Your task to perform on an android device: add a label to a message in the gmail app Image 0: 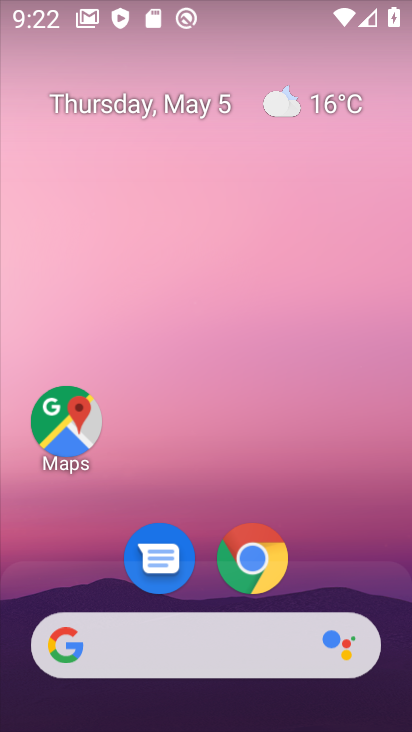
Step 0: drag from (338, 607) to (245, 177)
Your task to perform on an android device: add a label to a message in the gmail app Image 1: 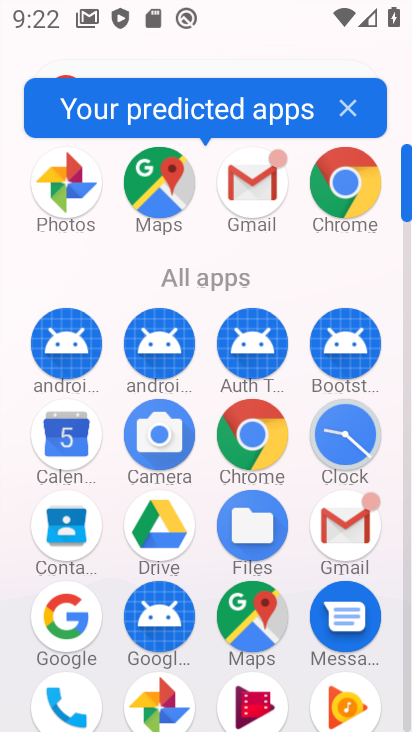
Step 1: click (247, 196)
Your task to perform on an android device: add a label to a message in the gmail app Image 2: 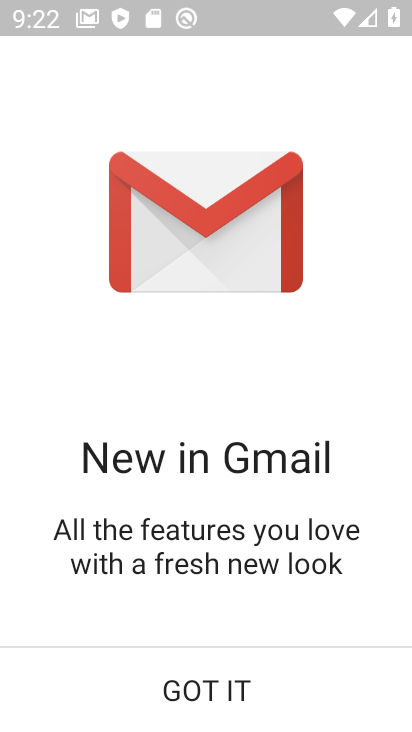
Step 2: click (228, 695)
Your task to perform on an android device: add a label to a message in the gmail app Image 3: 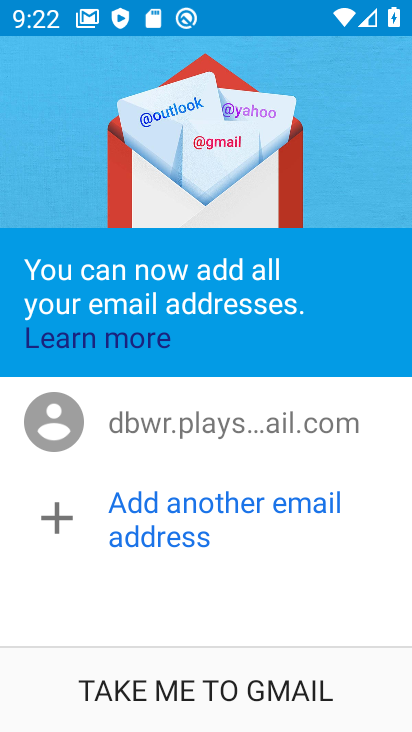
Step 3: click (228, 695)
Your task to perform on an android device: add a label to a message in the gmail app Image 4: 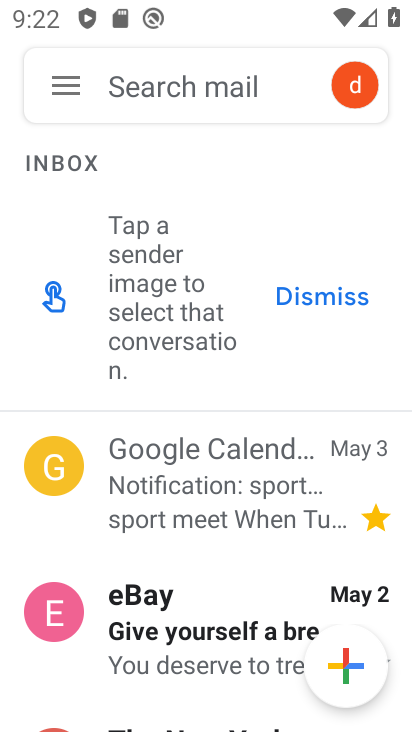
Step 4: click (198, 472)
Your task to perform on an android device: add a label to a message in the gmail app Image 5: 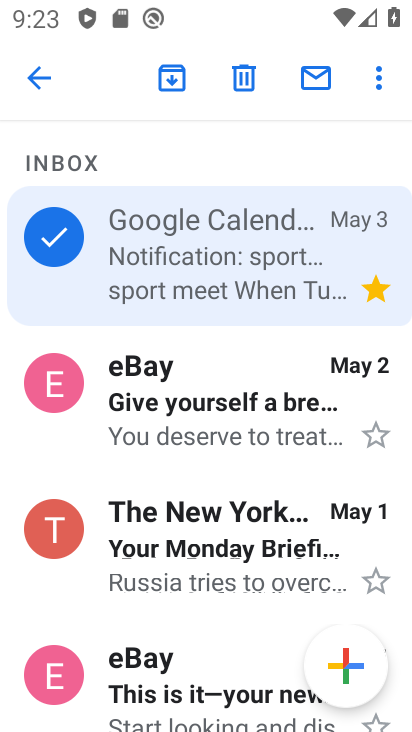
Step 5: click (373, 79)
Your task to perform on an android device: add a label to a message in the gmail app Image 6: 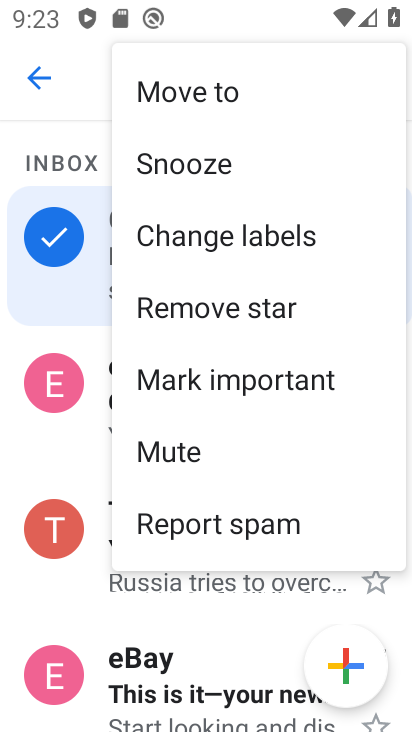
Step 6: click (273, 247)
Your task to perform on an android device: add a label to a message in the gmail app Image 7: 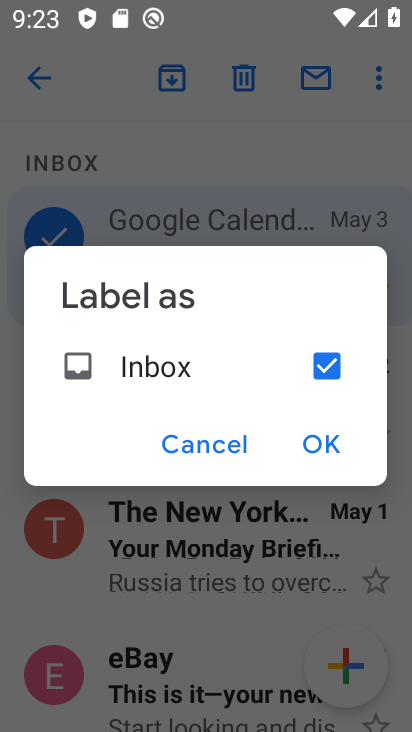
Step 7: click (327, 442)
Your task to perform on an android device: add a label to a message in the gmail app Image 8: 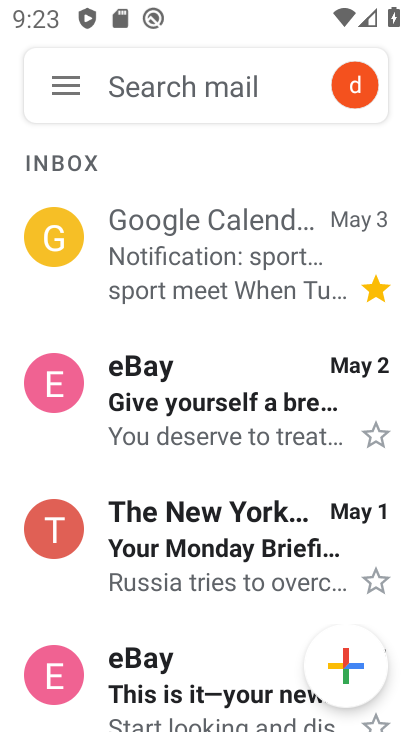
Step 8: task complete